Your task to perform on an android device: Is it going to rain this weekend? Image 0: 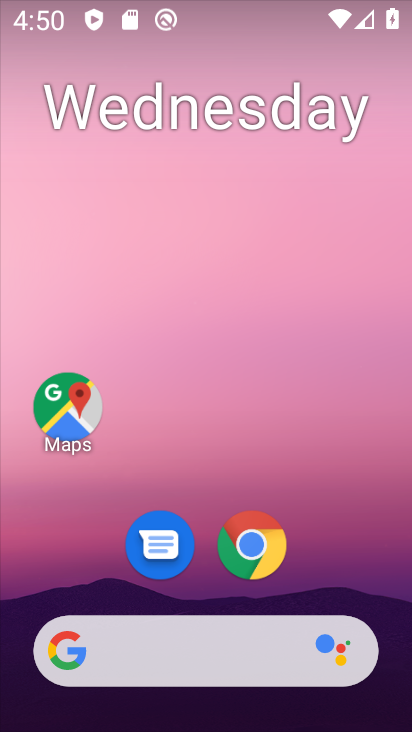
Step 0: drag from (346, 562) to (335, 74)
Your task to perform on an android device: Is it going to rain this weekend? Image 1: 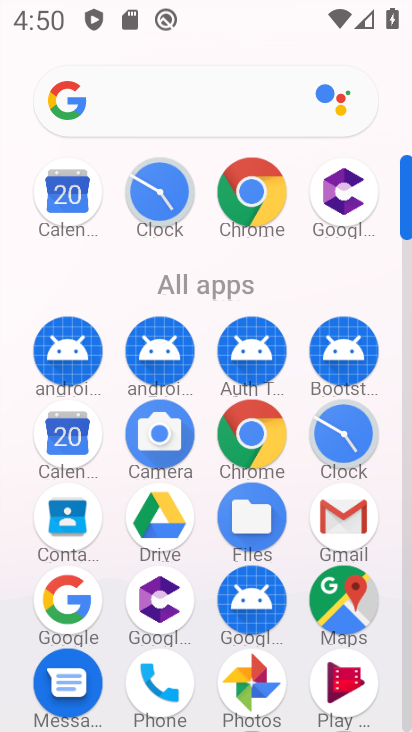
Step 1: click (257, 436)
Your task to perform on an android device: Is it going to rain this weekend? Image 2: 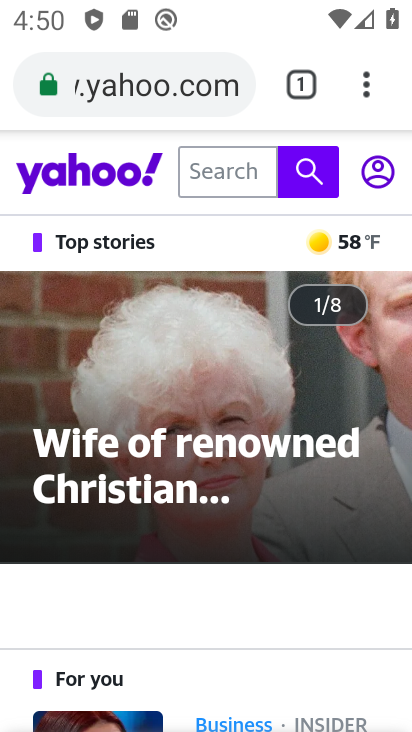
Step 2: click (226, 90)
Your task to perform on an android device: Is it going to rain this weekend? Image 3: 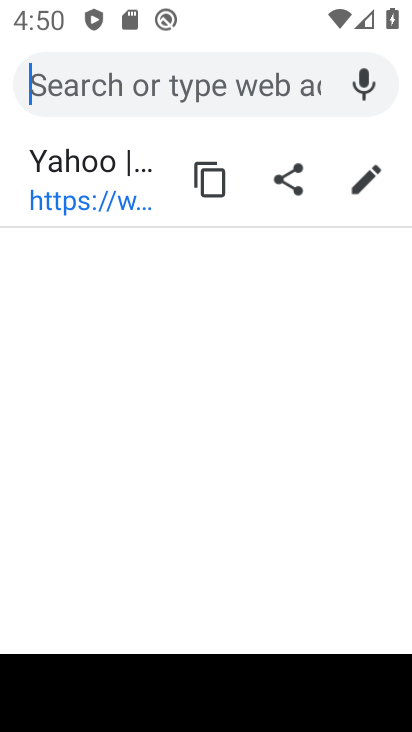
Step 3: type "weather"
Your task to perform on an android device: Is it going to rain this weekend? Image 4: 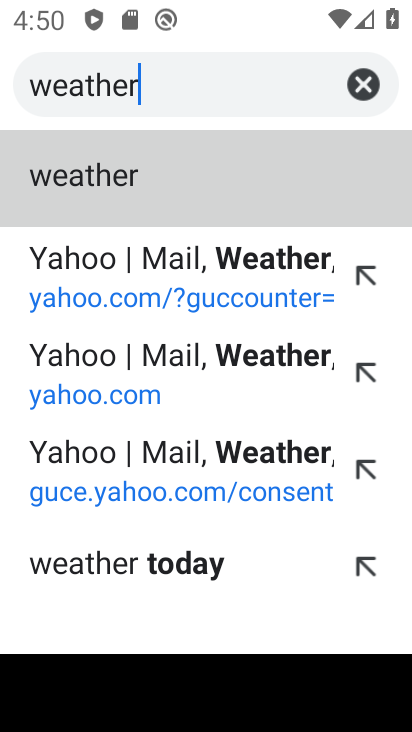
Step 4: click (96, 177)
Your task to perform on an android device: Is it going to rain this weekend? Image 5: 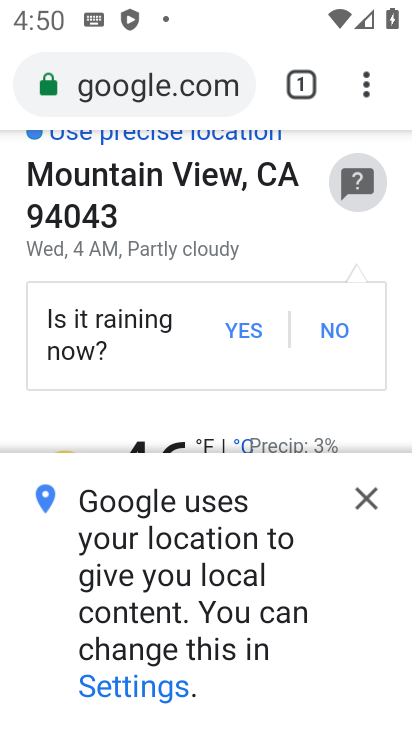
Step 5: click (367, 499)
Your task to perform on an android device: Is it going to rain this weekend? Image 6: 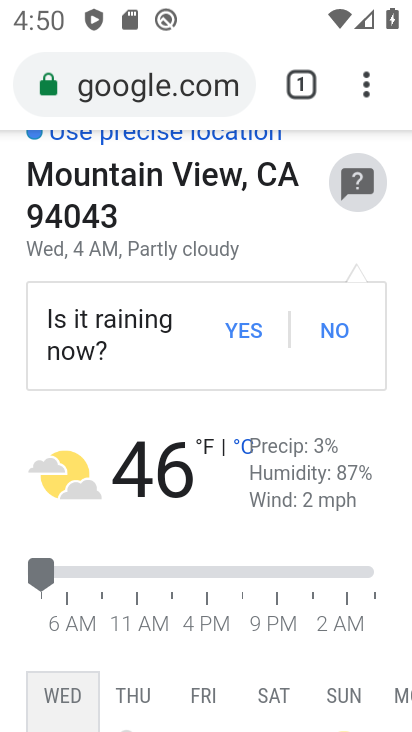
Step 6: task complete